Your task to perform on an android device: What is the recent news? Image 0: 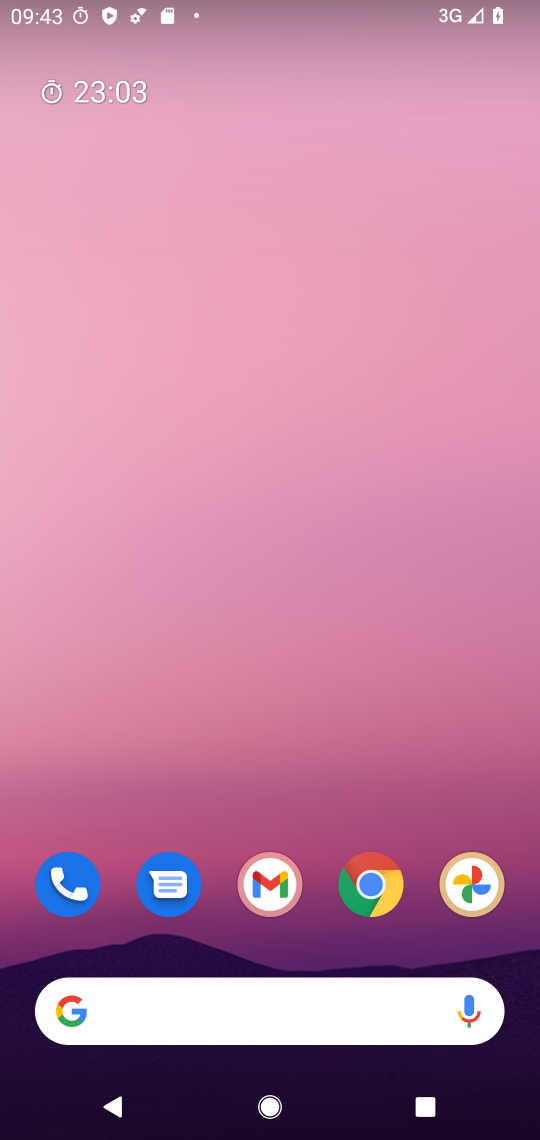
Step 0: drag from (272, 815) to (265, 231)
Your task to perform on an android device: What is the recent news? Image 1: 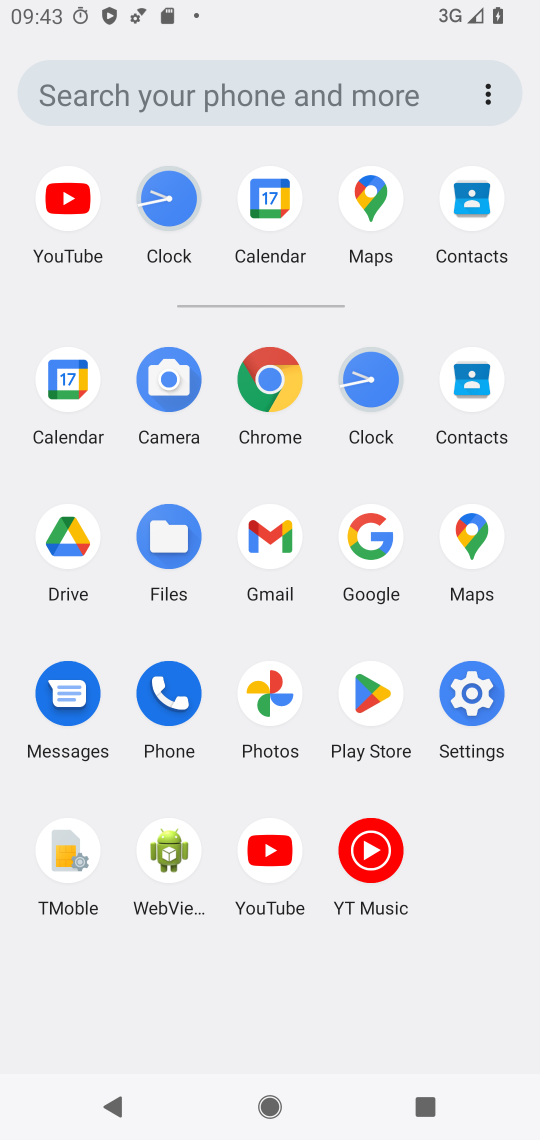
Step 1: click (348, 551)
Your task to perform on an android device: What is the recent news? Image 2: 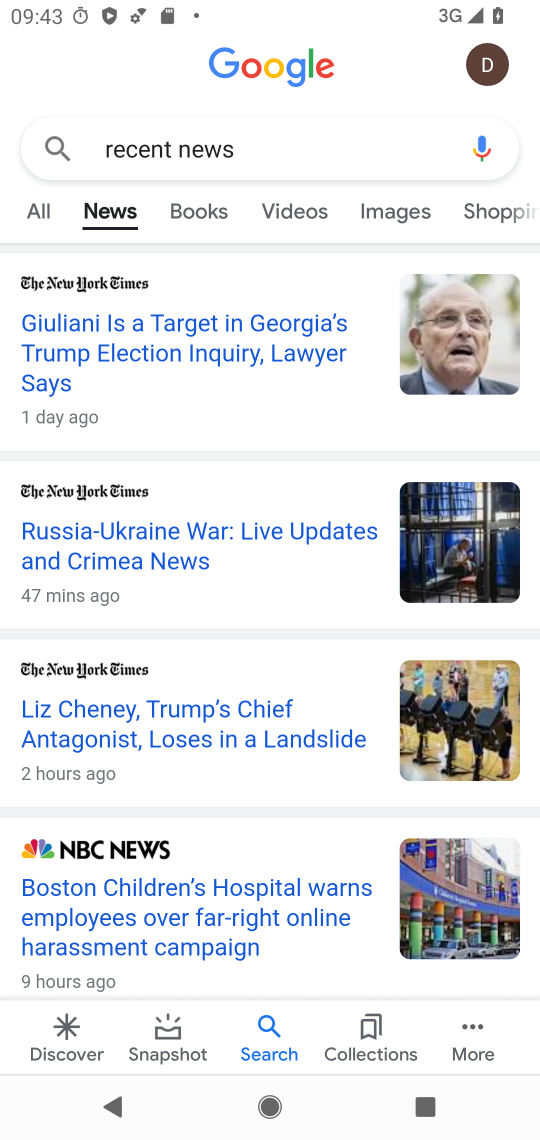
Step 2: task complete